Your task to perform on an android device: turn off priority inbox in the gmail app Image 0: 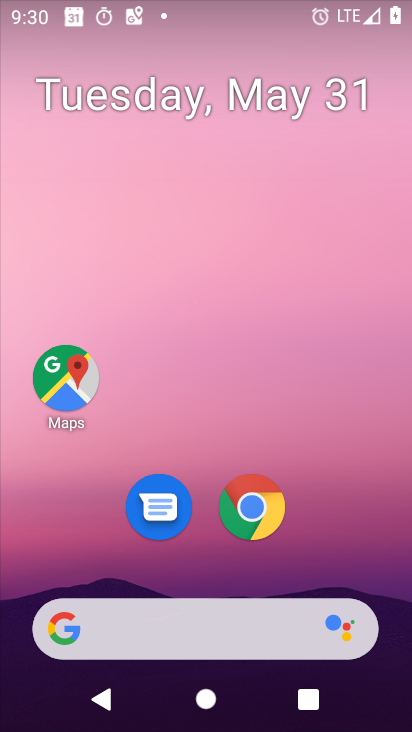
Step 0: drag from (22, 598) to (312, 160)
Your task to perform on an android device: turn off priority inbox in the gmail app Image 1: 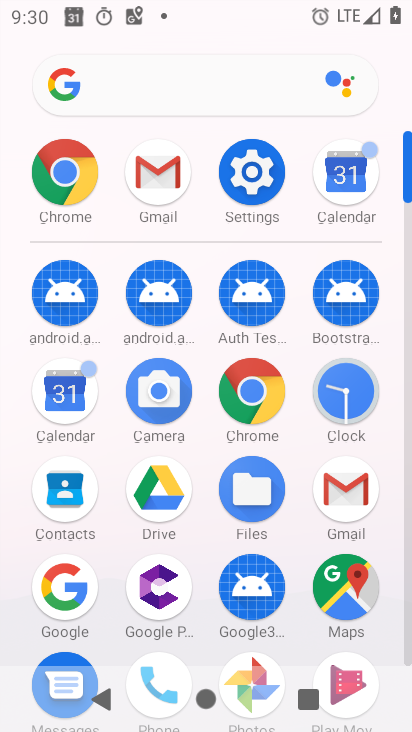
Step 1: click (143, 160)
Your task to perform on an android device: turn off priority inbox in the gmail app Image 2: 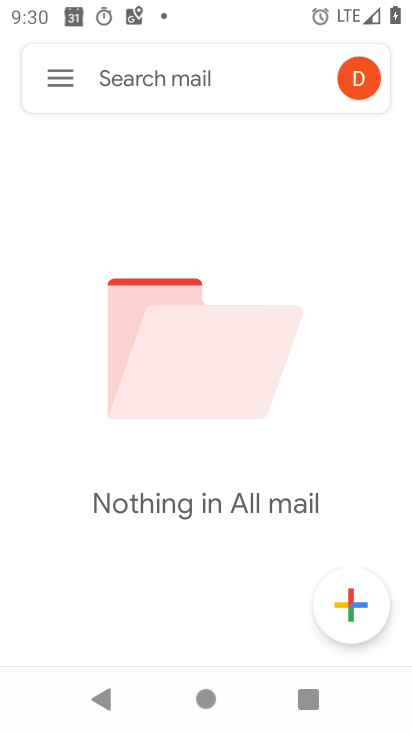
Step 2: click (75, 82)
Your task to perform on an android device: turn off priority inbox in the gmail app Image 3: 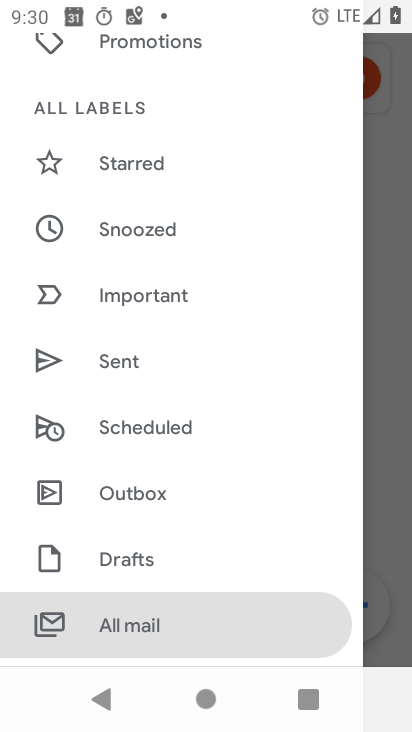
Step 3: drag from (10, 473) to (220, 50)
Your task to perform on an android device: turn off priority inbox in the gmail app Image 4: 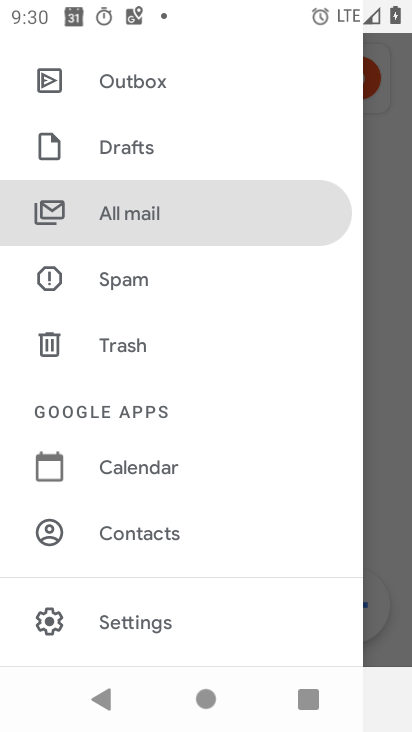
Step 4: drag from (41, 448) to (194, 134)
Your task to perform on an android device: turn off priority inbox in the gmail app Image 5: 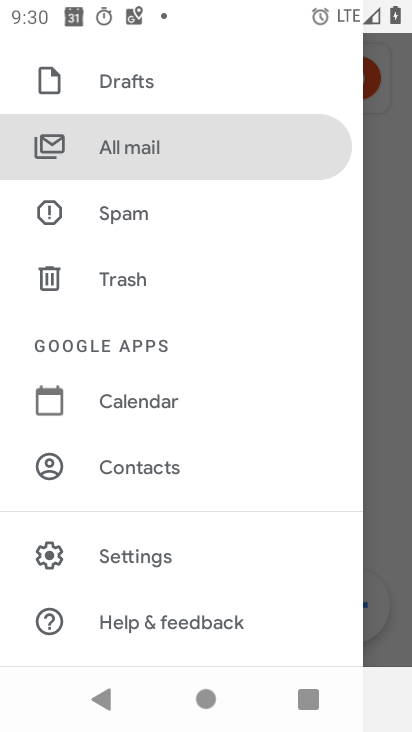
Step 5: click (75, 553)
Your task to perform on an android device: turn off priority inbox in the gmail app Image 6: 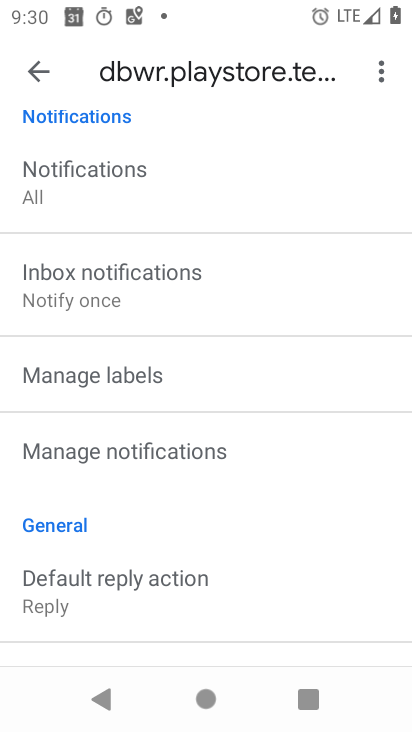
Step 6: drag from (21, 521) to (299, 80)
Your task to perform on an android device: turn off priority inbox in the gmail app Image 7: 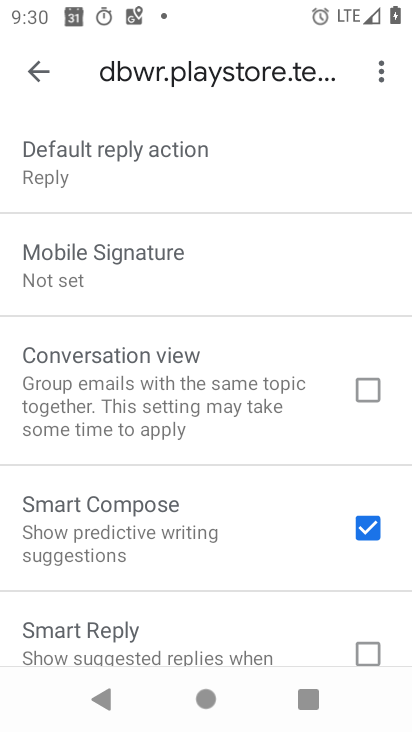
Step 7: drag from (136, 210) to (43, 554)
Your task to perform on an android device: turn off priority inbox in the gmail app Image 8: 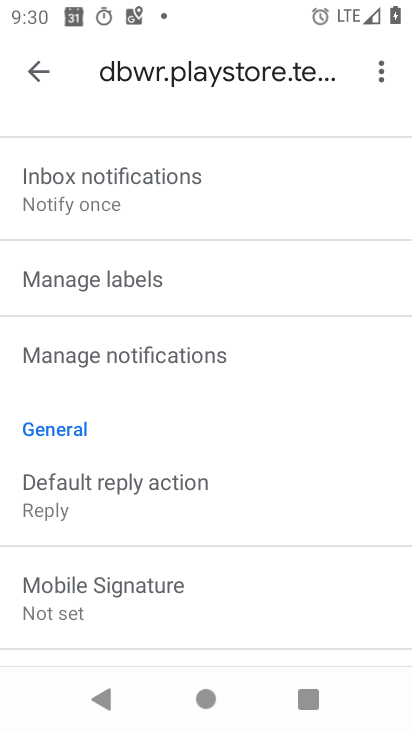
Step 8: drag from (134, 147) to (53, 530)
Your task to perform on an android device: turn off priority inbox in the gmail app Image 9: 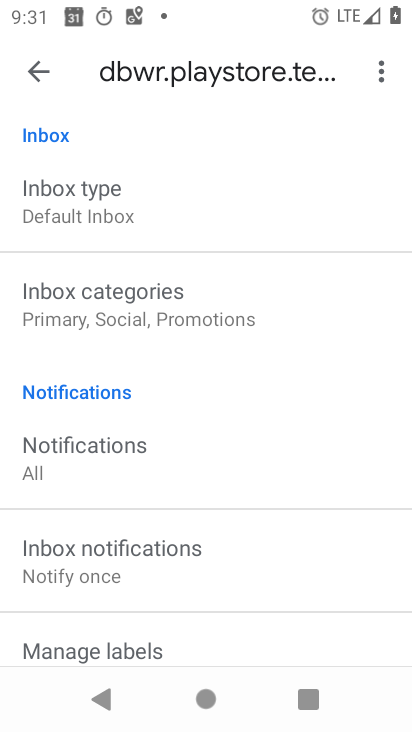
Step 9: click (124, 199)
Your task to perform on an android device: turn off priority inbox in the gmail app Image 10: 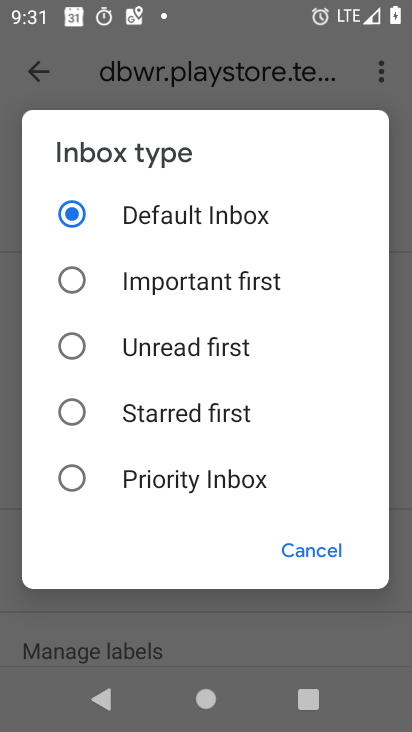
Step 10: task complete